Your task to perform on an android device: Open privacy settings Image 0: 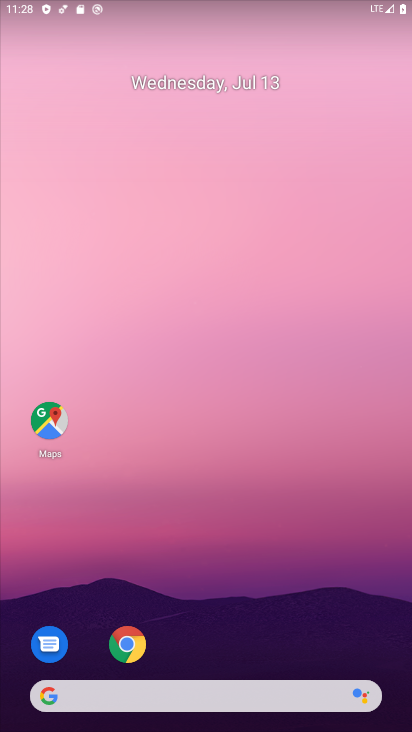
Step 0: click (133, 642)
Your task to perform on an android device: Open privacy settings Image 1: 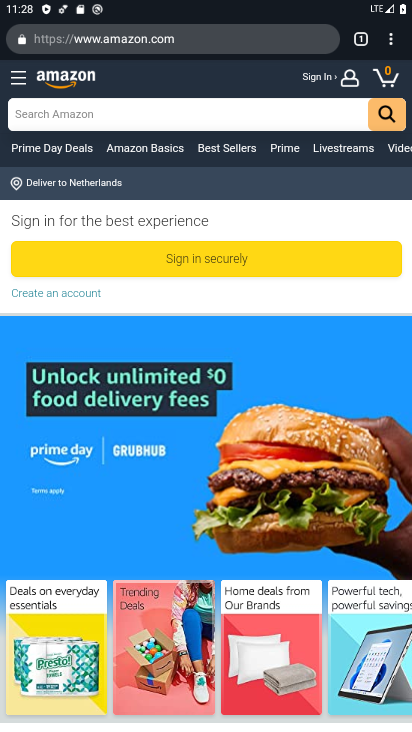
Step 1: drag from (391, 25) to (246, 505)
Your task to perform on an android device: Open privacy settings Image 2: 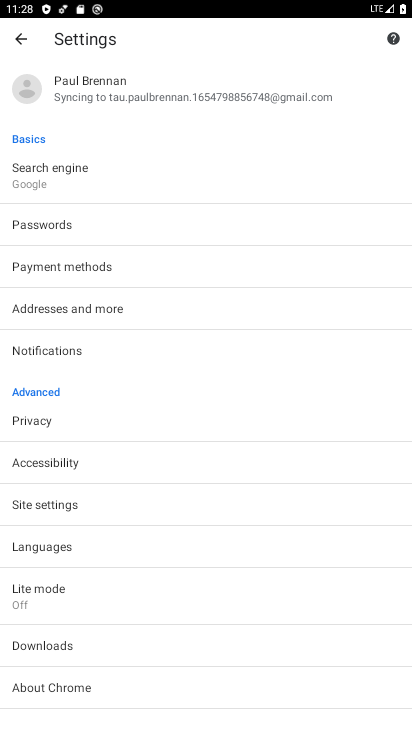
Step 2: click (135, 421)
Your task to perform on an android device: Open privacy settings Image 3: 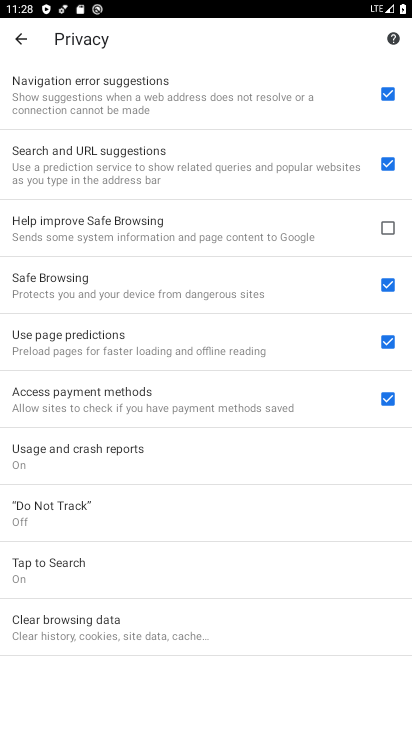
Step 3: task complete